Your task to perform on an android device: What's the weather going to be tomorrow? Image 0: 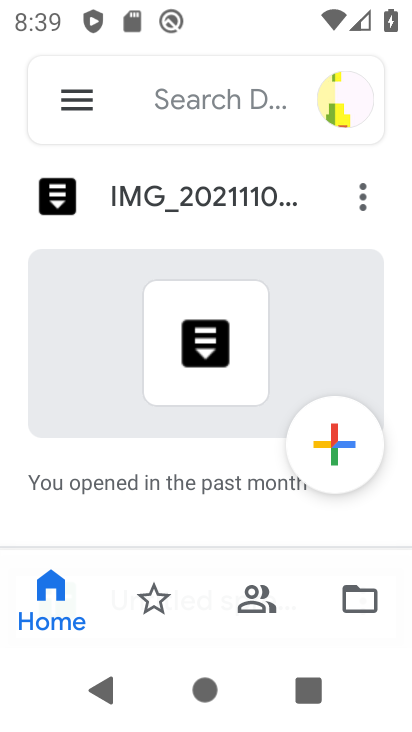
Step 0: press home button
Your task to perform on an android device: What's the weather going to be tomorrow? Image 1: 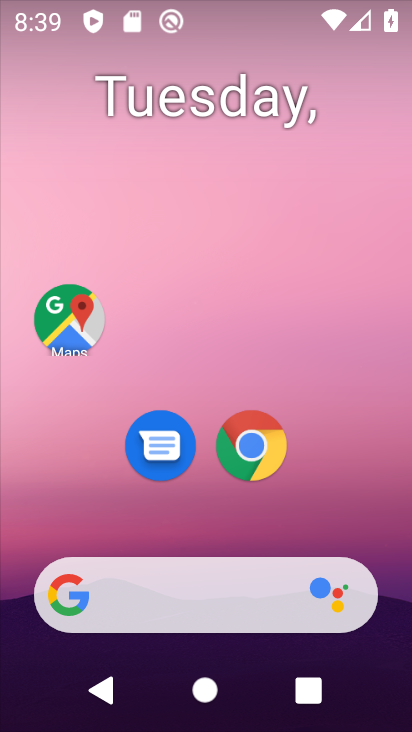
Step 1: click (178, 589)
Your task to perform on an android device: What's the weather going to be tomorrow? Image 2: 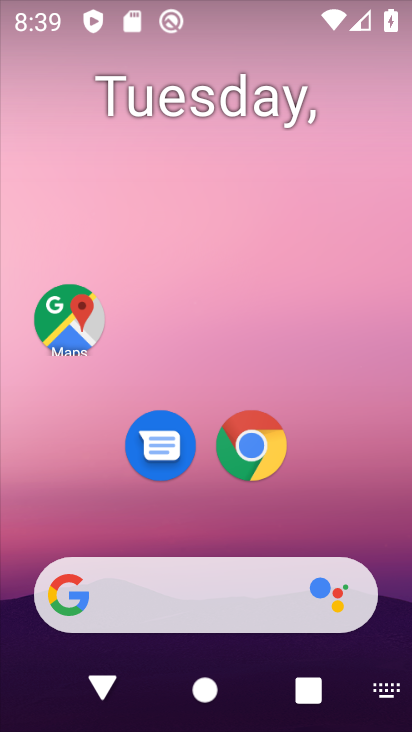
Step 2: click (118, 588)
Your task to perform on an android device: What's the weather going to be tomorrow? Image 3: 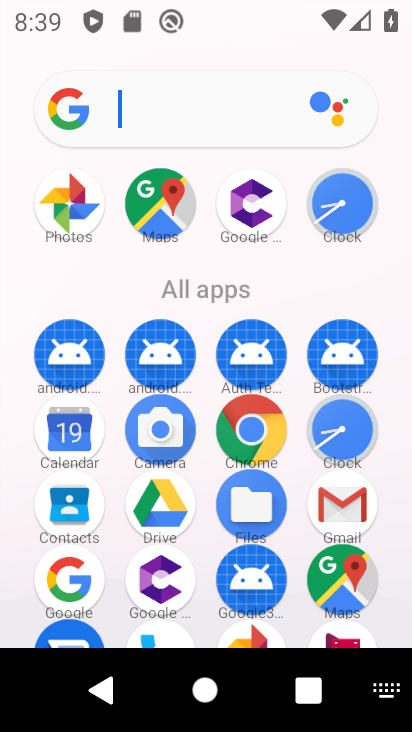
Step 3: type "What's the weather going to be tomorrow?"
Your task to perform on an android device: What's the weather going to be tomorrow? Image 4: 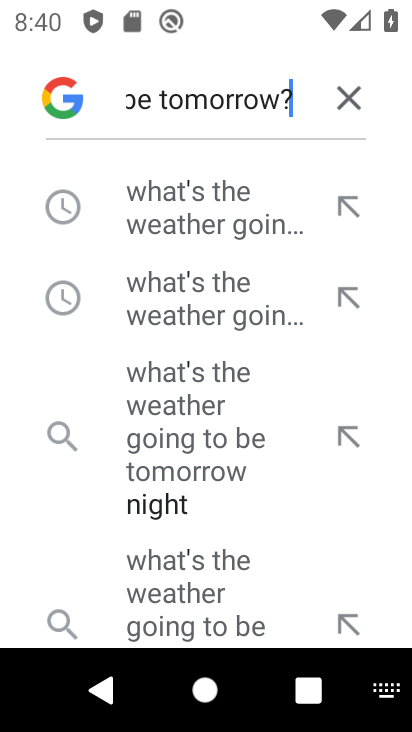
Step 4: click (204, 215)
Your task to perform on an android device: What's the weather going to be tomorrow? Image 5: 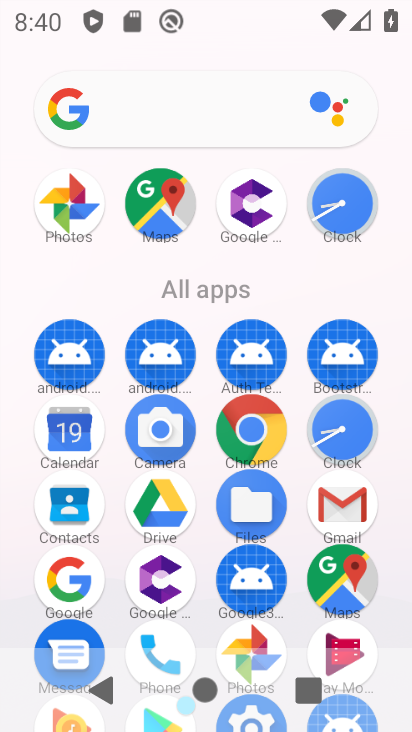
Step 5: task complete